Your task to perform on an android device: Check the news Image 0: 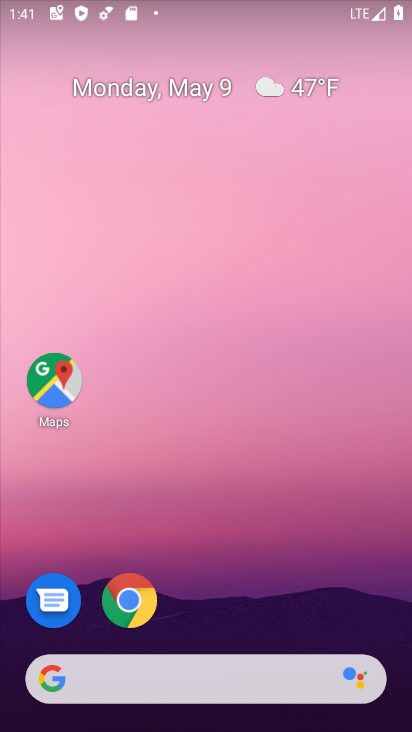
Step 0: drag from (26, 291) to (309, 298)
Your task to perform on an android device: Check the news Image 1: 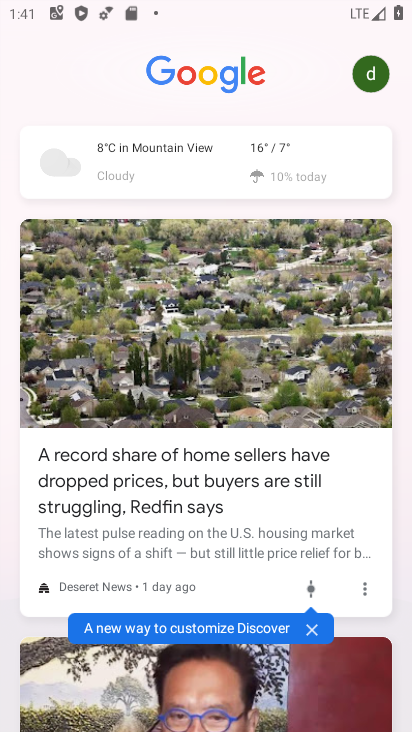
Step 1: task complete